Your task to perform on an android device: open a bookmark in the chrome app Image 0: 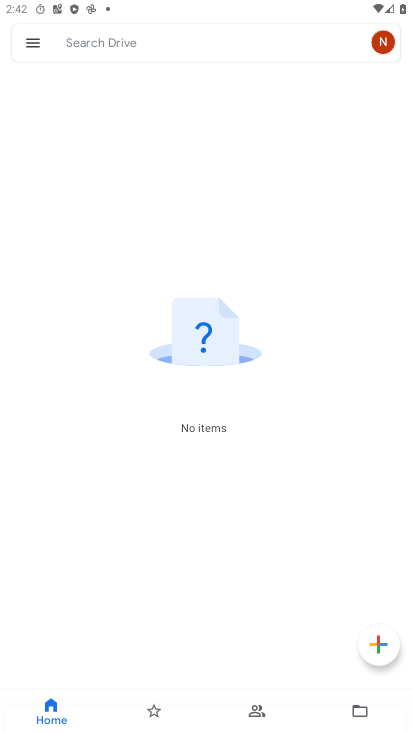
Step 0: press home button
Your task to perform on an android device: open a bookmark in the chrome app Image 1: 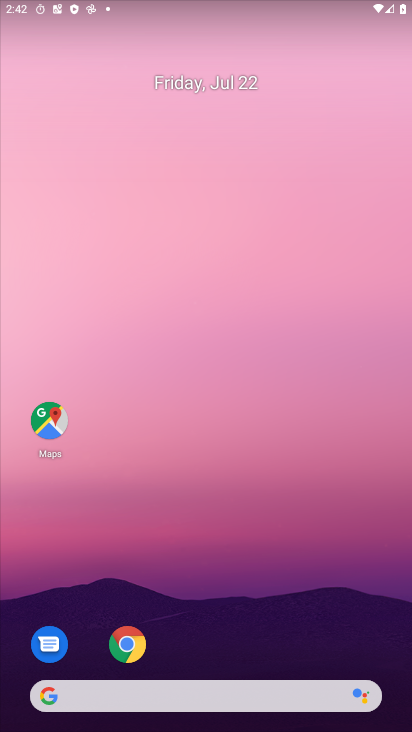
Step 1: task complete